Your task to perform on an android device: open app "DuckDuckGo Privacy Browser" Image 0: 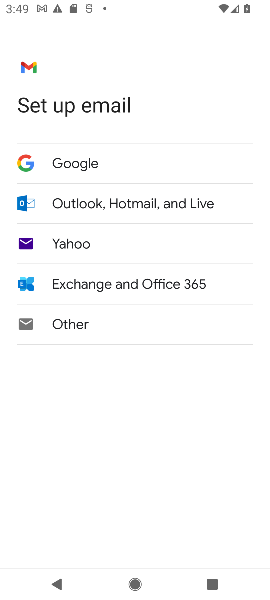
Step 0: press home button
Your task to perform on an android device: open app "DuckDuckGo Privacy Browser" Image 1: 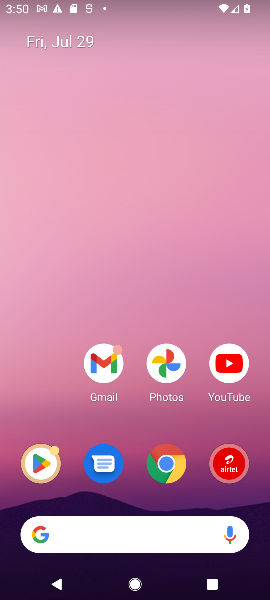
Step 1: drag from (108, 546) to (147, 63)
Your task to perform on an android device: open app "DuckDuckGo Privacy Browser" Image 2: 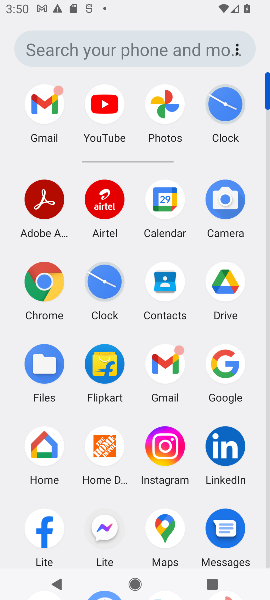
Step 2: drag from (123, 513) to (120, 186)
Your task to perform on an android device: open app "DuckDuckGo Privacy Browser" Image 3: 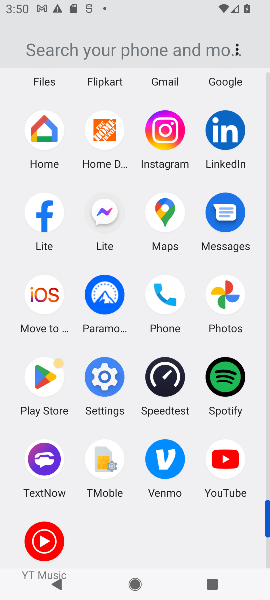
Step 3: click (49, 375)
Your task to perform on an android device: open app "DuckDuckGo Privacy Browser" Image 4: 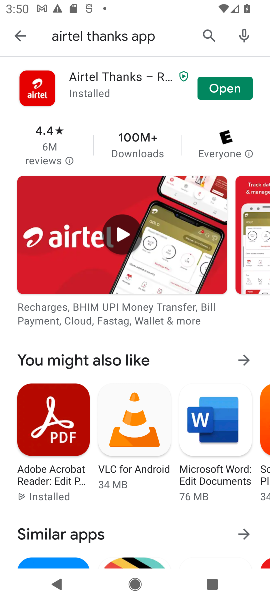
Step 4: click (214, 37)
Your task to perform on an android device: open app "DuckDuckGo Privacy Browser" Image 5: 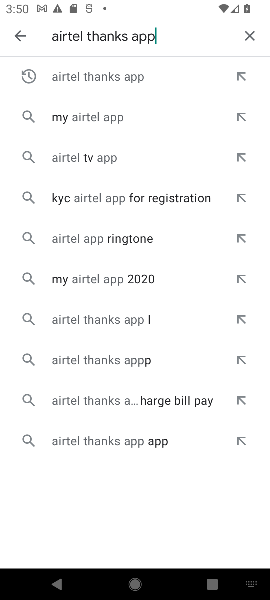
Step 5: click (253, 33)
Your task to perform on an android device: open app "DuckDuckGo Privacy Browser" Image 6: 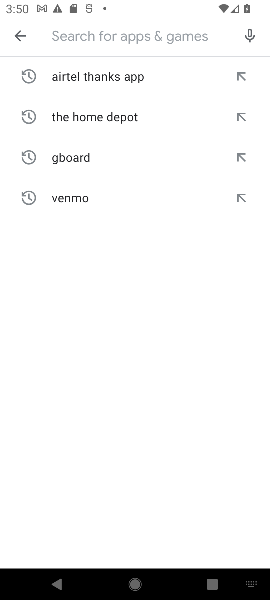
Step 6: click (118, 29)
Your task to perform on an android device: open app "DuckDuckGo Privacy Browser" Image 7: 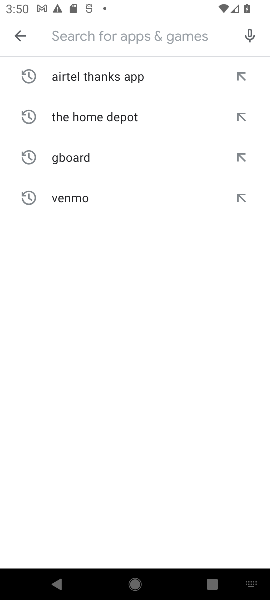
Step 7: type "DuckDuckGo Privacy Browser"
Your task to perform on an android device: open app "DuckDuckGo Privacy Browser" Image 8: 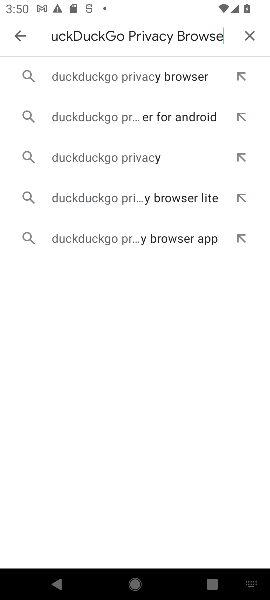
Step 8: type ""
Your task to perform on an android device: open app "DuckDuckGo Privacy Browser" Image 9: 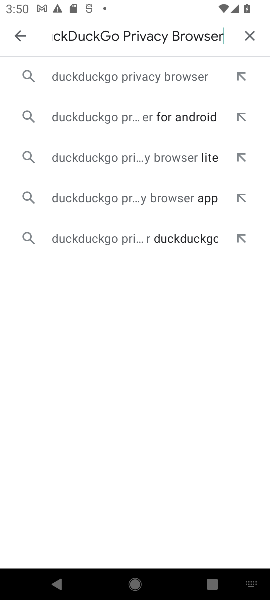
Step 9: click (166, 75)
Your task to perform on an android device: open app "DuckDuckGo Privacy Browser" Image 10: 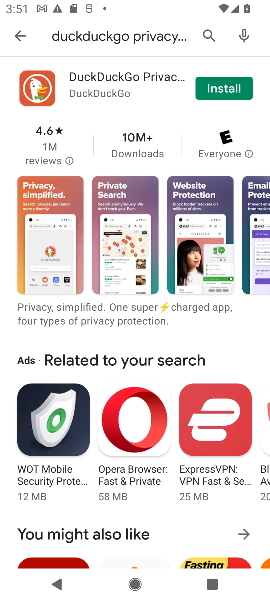
Step 10: task complete